Your task to perform on an android device: snooze an email in the gmail app Image 0: 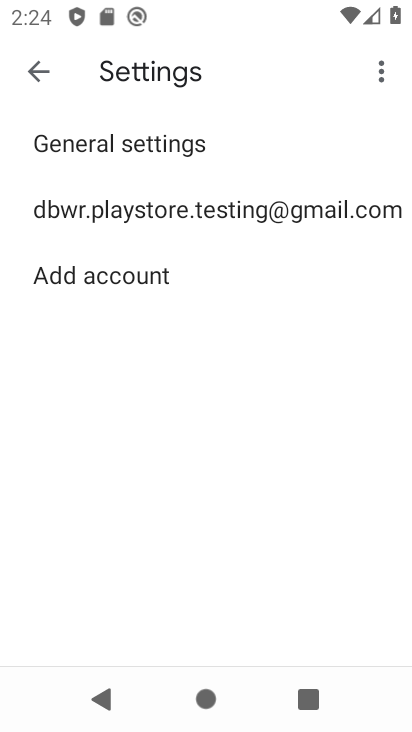
Step 0: click (45, 74)
Your task to perform on an android device: snooze an email in the gmail app Image 1: 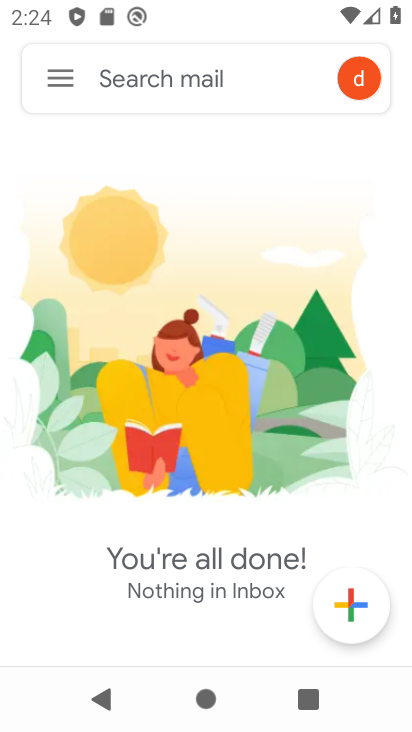
Step 1: click (52, 78)
Your task to perform on an android device: snooze an email in the gmail app Image 2: 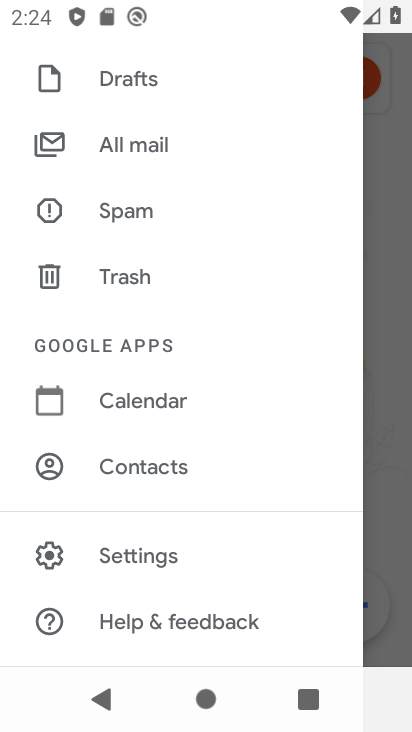
Step 2: click (141, 143)
Your task to perform on an android device: snooze an email in the gmail app Image 3: 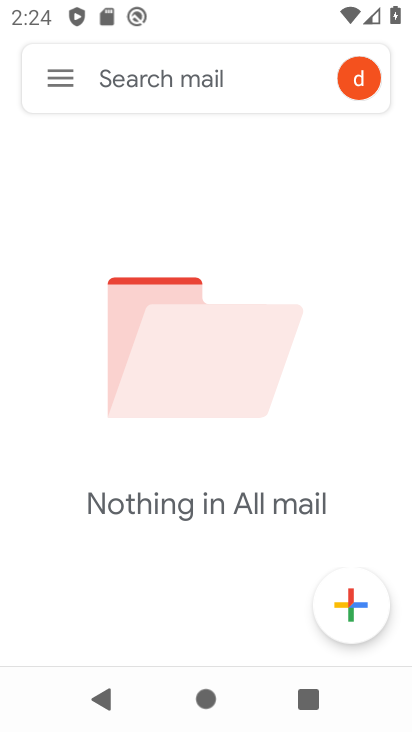
Step 3: task complete